Your task to perform on an android device: Go to settings Image 0: 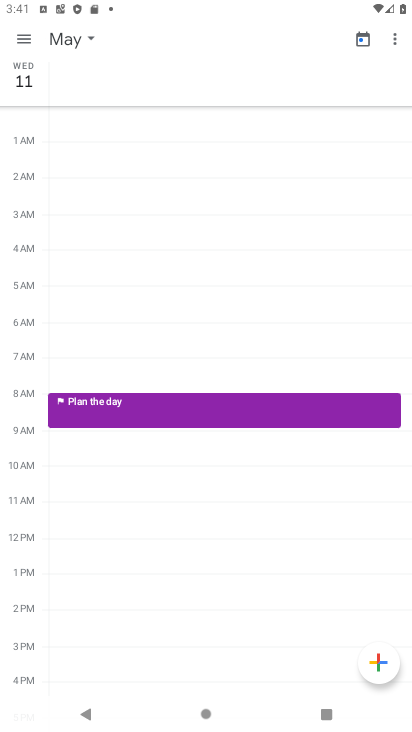
Step 0: press home button
Your task to perform on an android device: Go to settings Image 1: 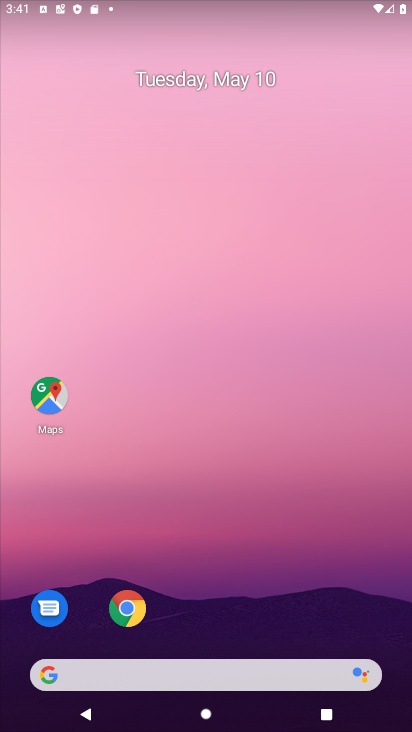
Step 1: drag from (402, 637) to (356, 127)
Your task to perform on an android device: Go to settings Image 2: 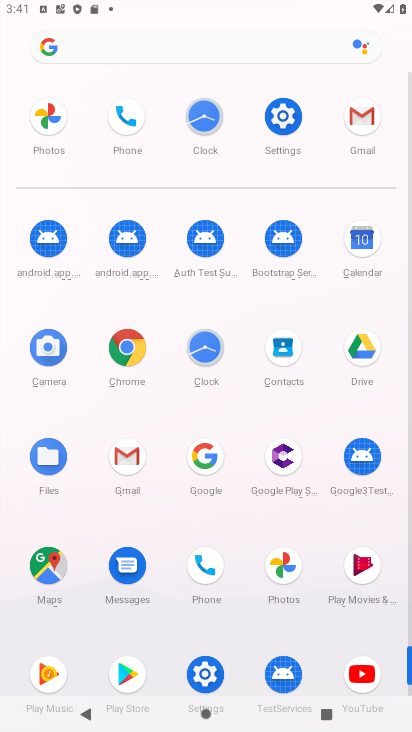
Step 2: click (204, 674)
Your task to perform on an android device: Go to settings Image 3: 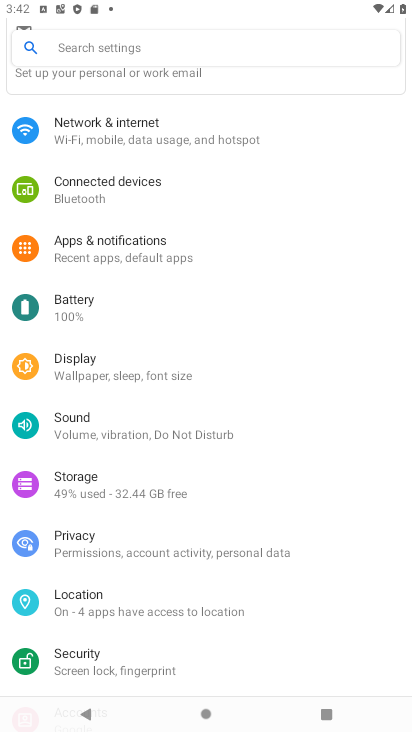
Step 3: task complete